Your task to perform on an android device: turn on improve location accuracy Image 0: 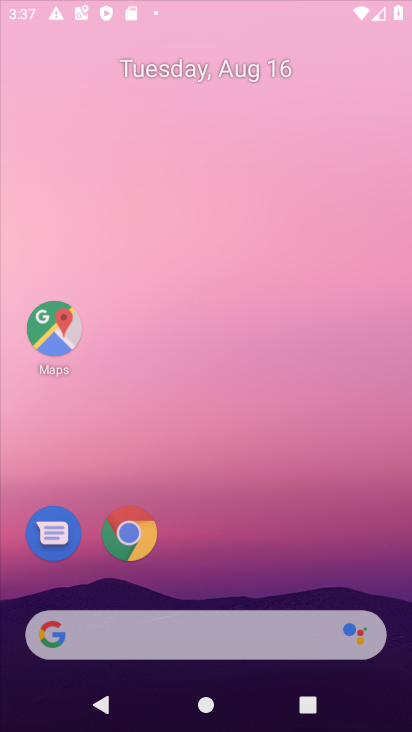
Step 0: press home button
Your task to perform on an android device: turn on improve location accuracy Image 1: 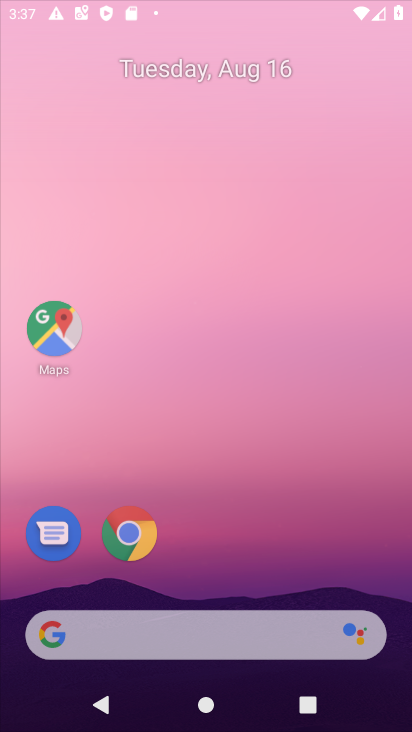
Step 1: click (356, 67)
Your task to perform on an android device: turn on improve location accuracy Image 2: 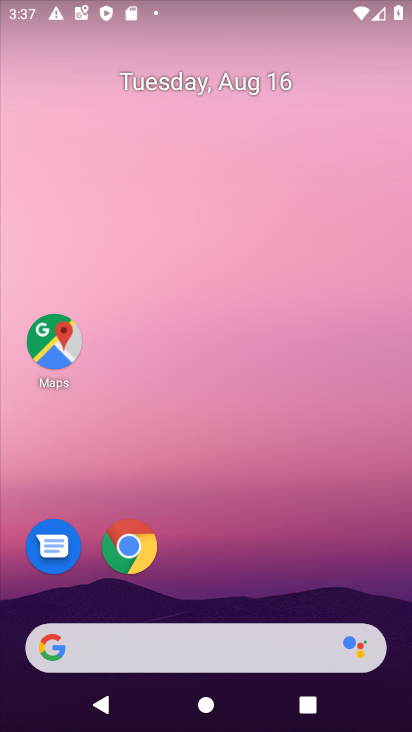
Step 2: drag from (293, 602) to (302, 100)
Your task to perform on an android device: turn on improve location accuracy Image 3: 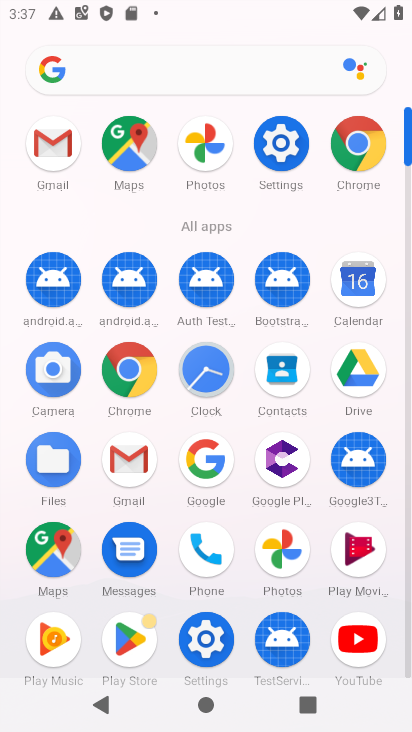
Step 3: click (287, 151)
Your task to perform on an android device: turn on improve location accuracy Image 4: 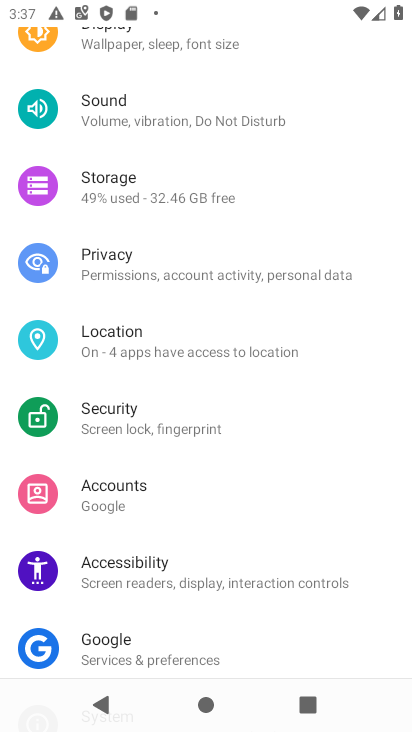
Step 4: click (326, 350)
Your task to perform on an android device: turn on improve location accuracy Image 5: 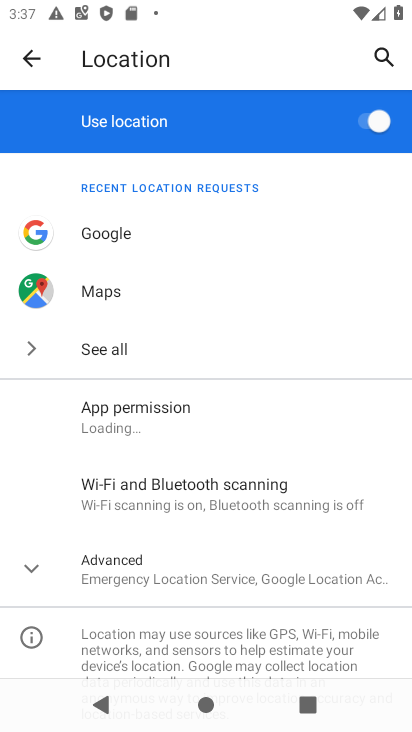
Step 5: click (288, 584)
Your task to perform on an android device: turn on improve location accuracy Image 6: 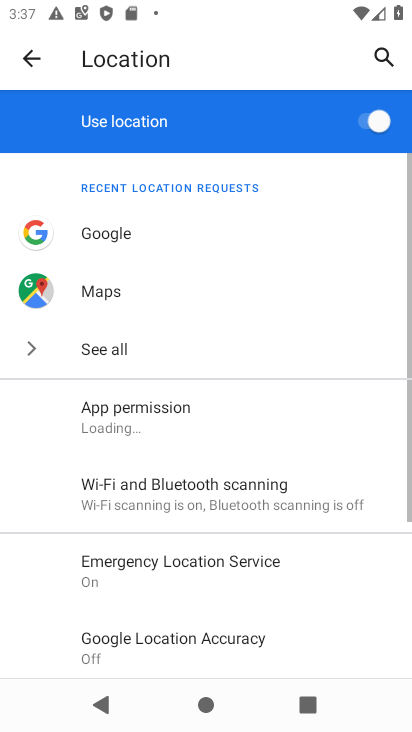
Step 6: drag from (303, 574) to (321, 430)
Your task to perform on an android device: turn on improve location accuracy Image 7: 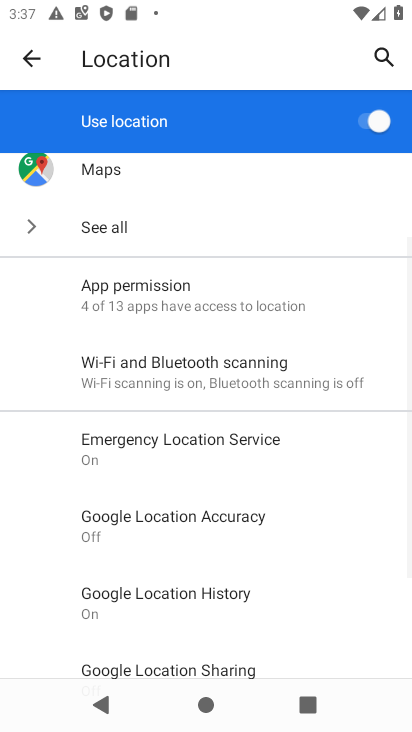
Step 7: drag from (321, 561) to (333, 449)
Your task to perform on an android device: turn on improve location accuracy Image 8: 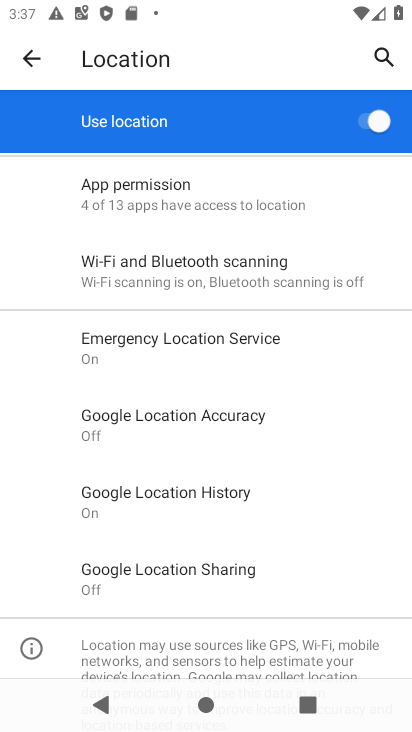
Step 8: drag from (334, 555) to (333, 430)
Your task to perform on an android device: turn on improve location accuracy Image 9: 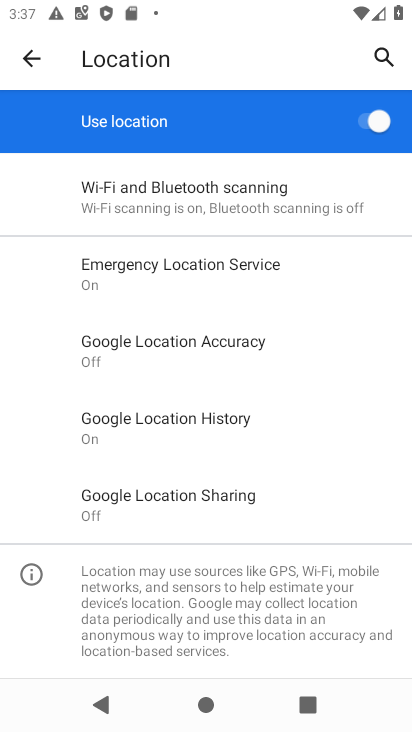
Step 9: click (256, 342)
Your task to perform on an android device: turn on improve location accuracy Image 10: 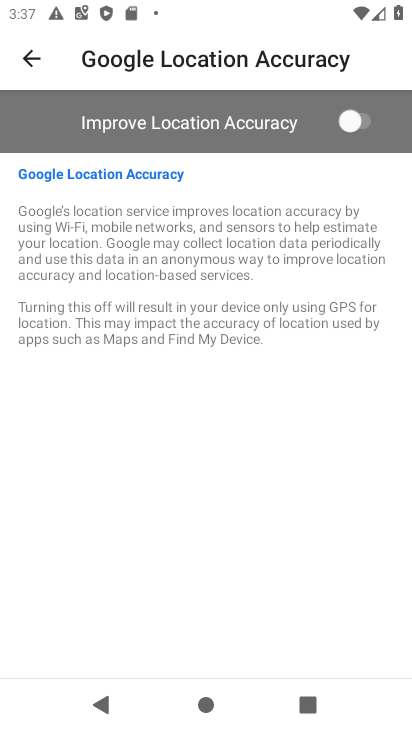
Step 10: click (351, 128)
Your task to perform on an android device: turn on improve location accuracy Image 11: 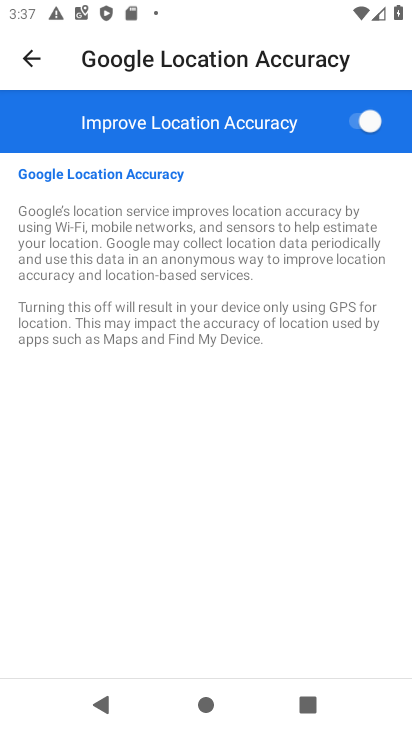
Step 11: task complete